Your task to perform on an android device: Open Google Chrome Image 0: 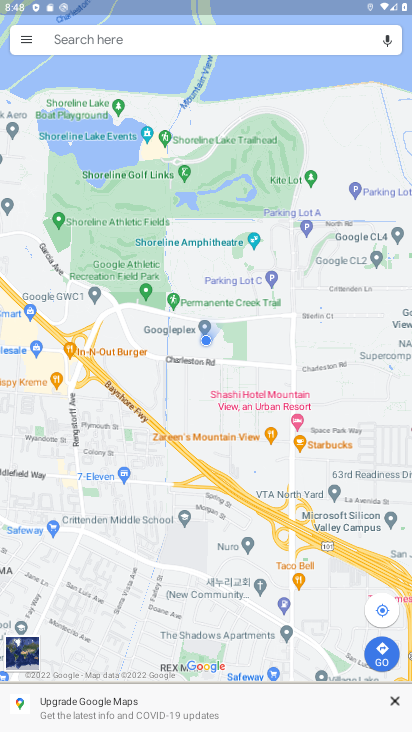
Step 0: press home button
Your task to perform on an android device: Open Google Chrome Image 1: 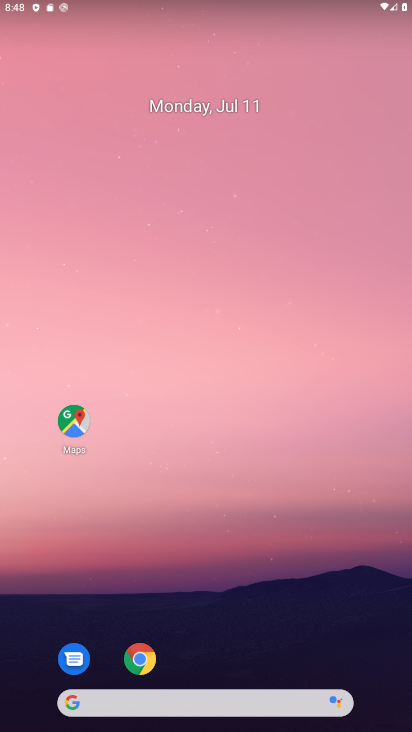
Step 1: drag from (220, 729) to (204, 126)
Your task to perform on an android device: Open Google Chrome Image 2: 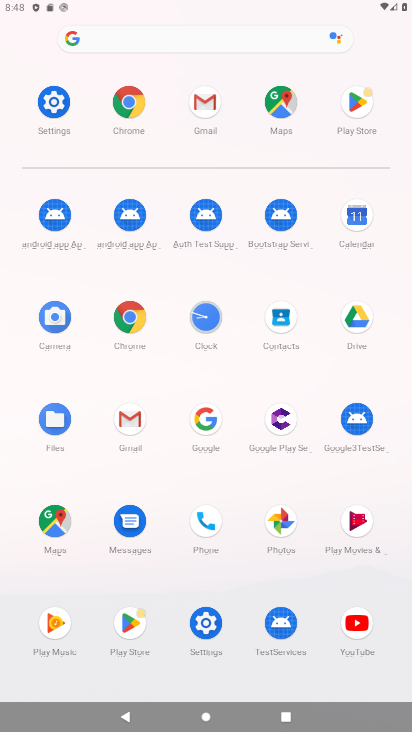
Step 2: click (133, 103)
Your task to perform on an android device: Open Google Chrome Image 3: 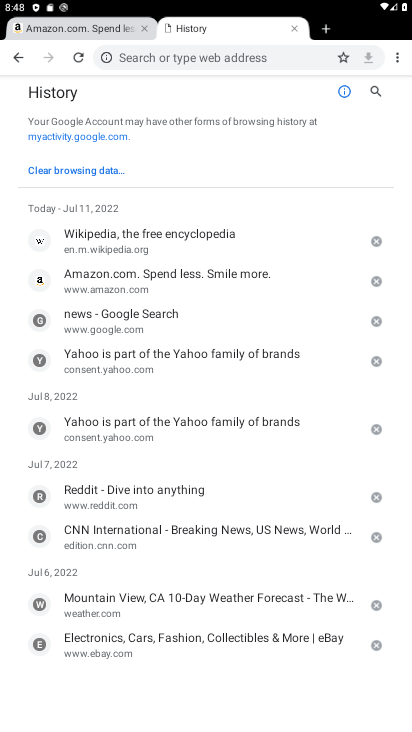
Step 3: task complete